Your task to perform on an android device: turn on javascript in the chrome app Image 0: 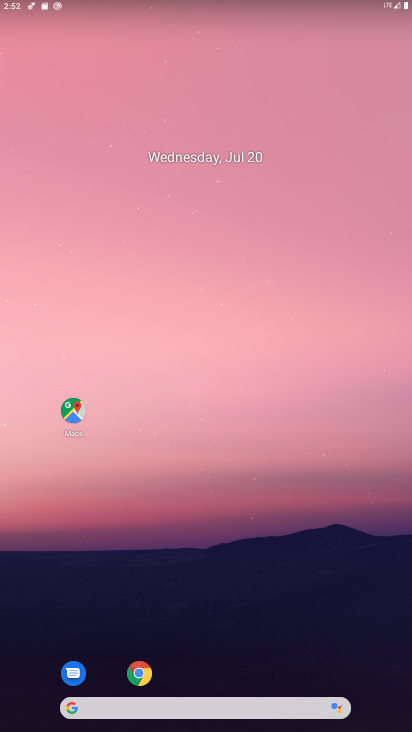
Step 0: click (275, 286)
Your task to perform on an android device: turn on javascript in the chrome app Image 1: 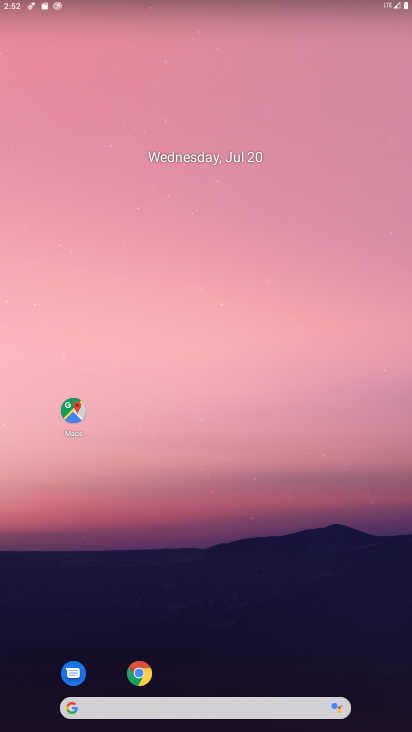
Step 1: drag from (240, 669) to (226, 0)
Your task to perform on an android device: turn on javascript in the chrome app Image 2: 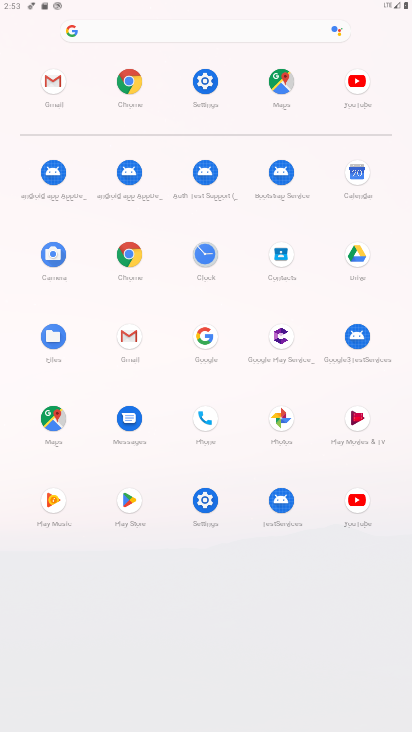
Step 2: click (130, 267)
Your task to perform on an android device: turn on javascript in the chrome app Image 3: 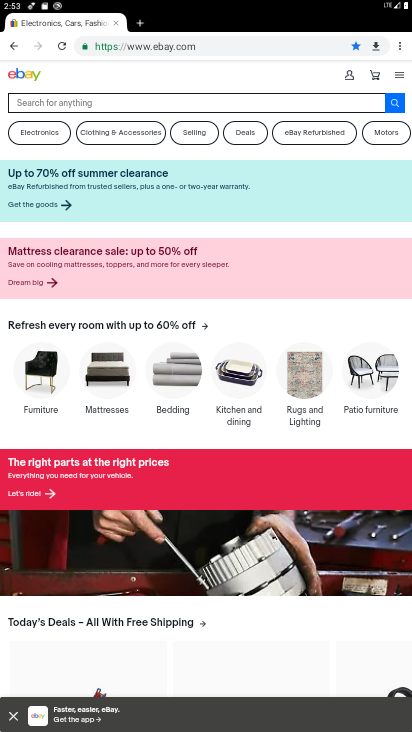
Step 3: click (393, 45)
Your task to perform on an android device: turn on javascript in the chrome app Image 4: 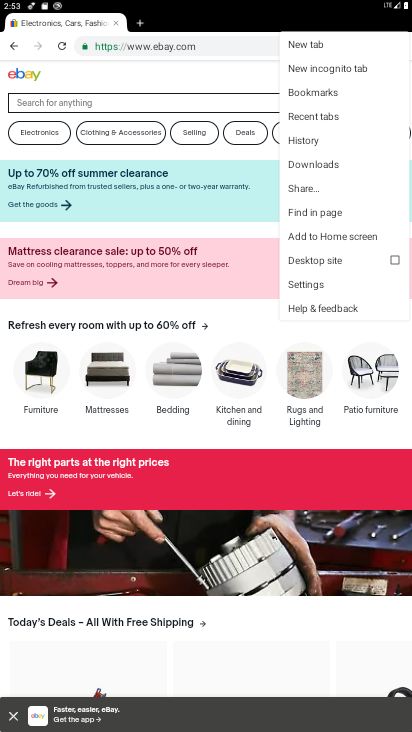
Step 4: click (300, 283)
Your task to perform on an android device: turn on javascript in the chrome app Image 5: 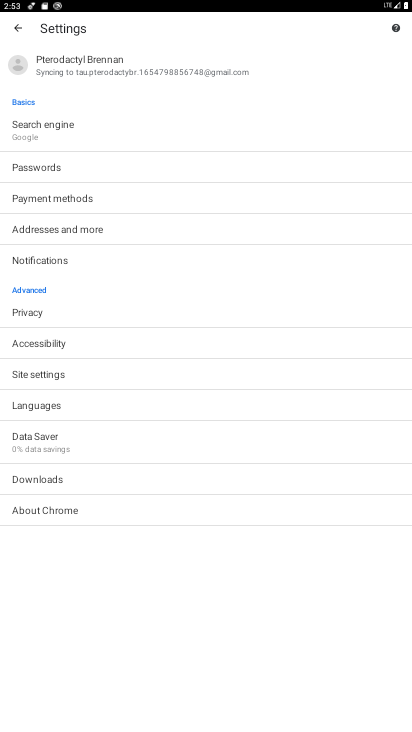
Step 5: click (61, 365)
Your task to perform on an android device: turn on javascript in the chrome app Image 6: 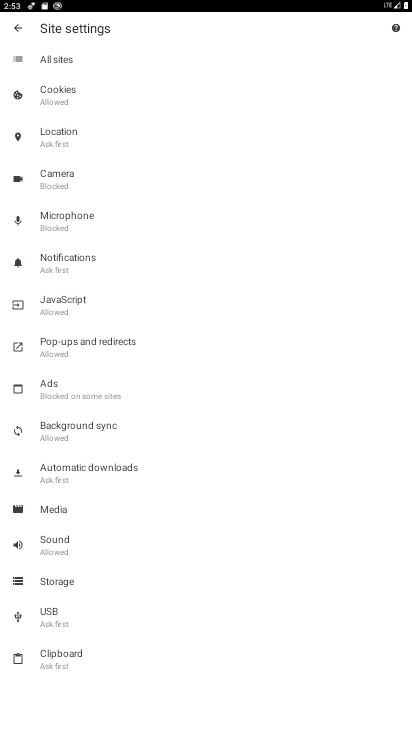
Step 6: click (88, 305)
Your task to perform on an android device: turn on javascript in the chrome app Image 7: 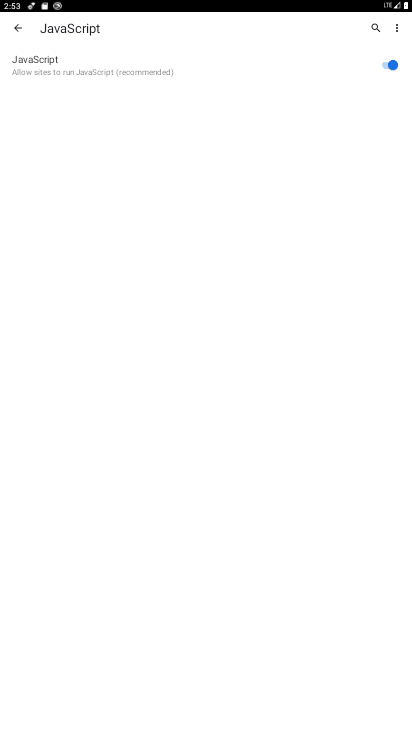
Step 7: task complete